Your task to perform on an android device: turn on data saver in the chrome app Image 0: 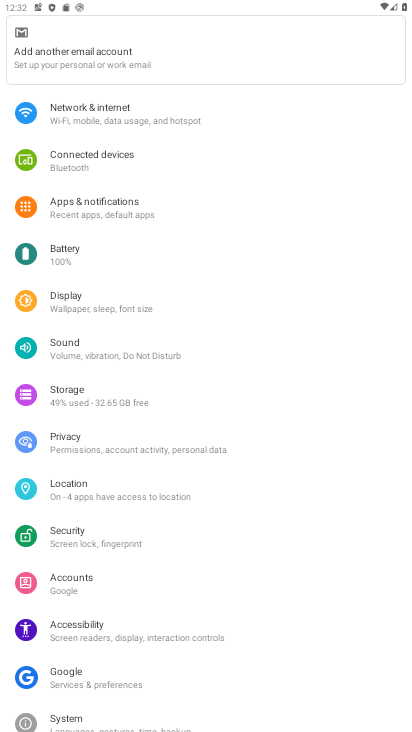
Step 0: press home button
Your task to perform on an android device: turn on data saver in the chrome app Image 1: 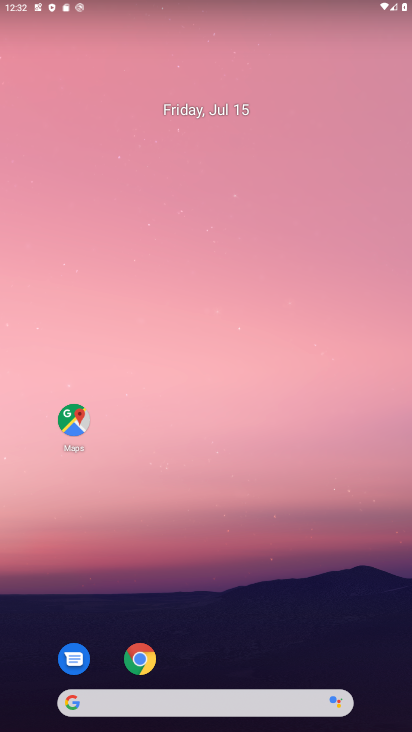
Step 1: click (147, 660)
Your task to perform on an android device: turn on data saver in the chrome app Image 2: 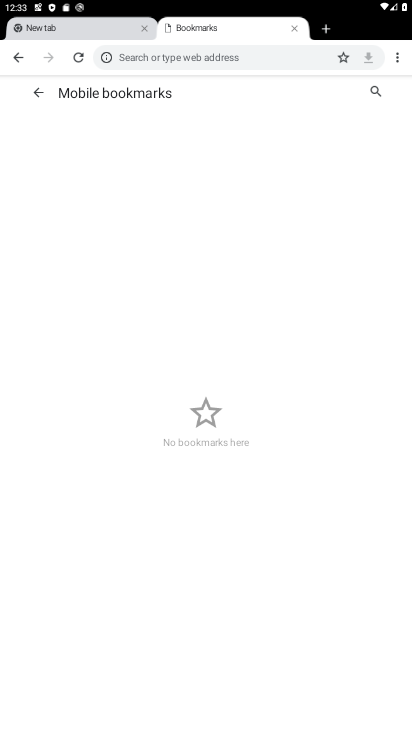
Step 2: click (394, 68)
Your task to perform on an android device: turn on data saver in the chrome app Image 3: 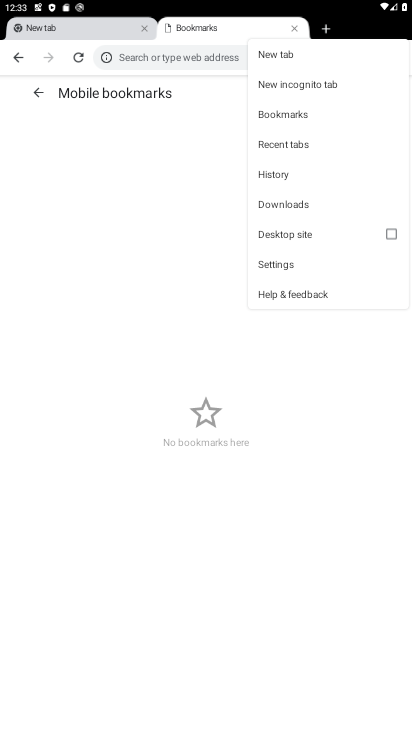
Step 3: click (298, 262)
Your task to perform on an android device: turn on data saver in the chrome app Image 4: 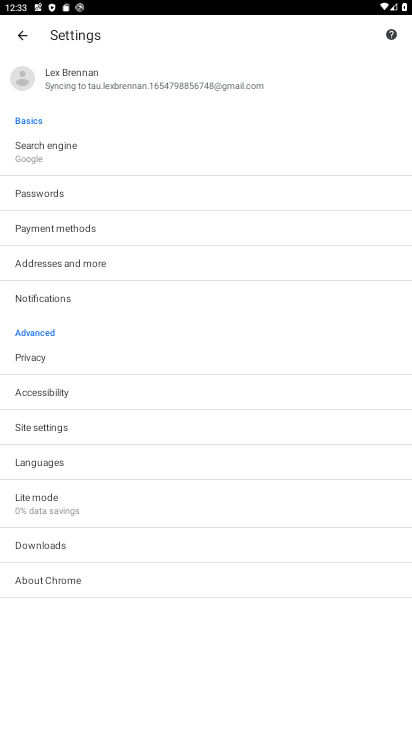
Step 4: click (60, 518)
Your task to perform on an android device: turn on data saver in the chrome app Image 5: 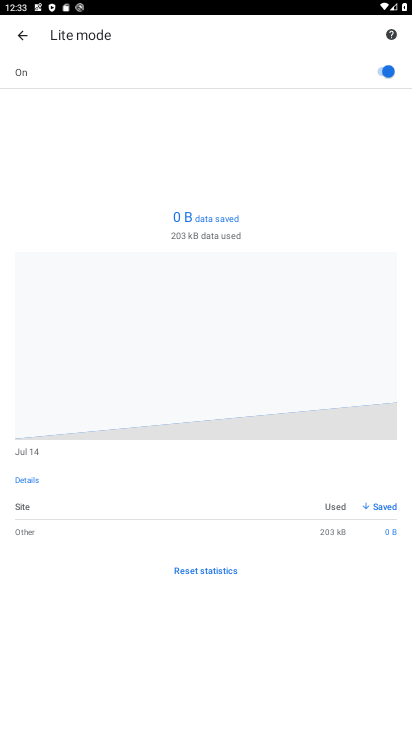
Step 5: task complete